Your task to perform on an android device: change timer sound Image 0: 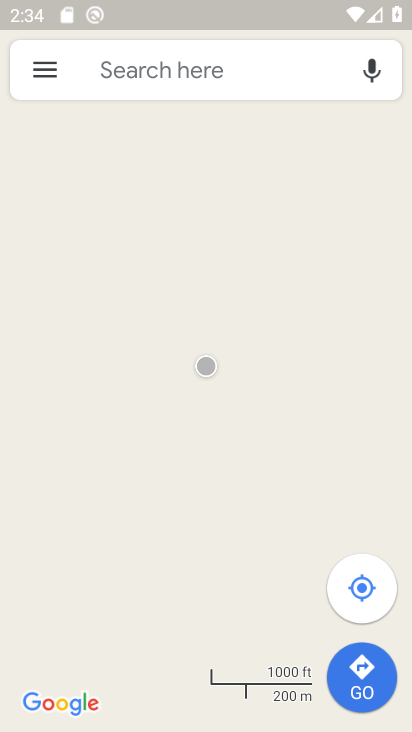
Step 0: press back button
Your task to perform on an android device: change timer sound Image 1: 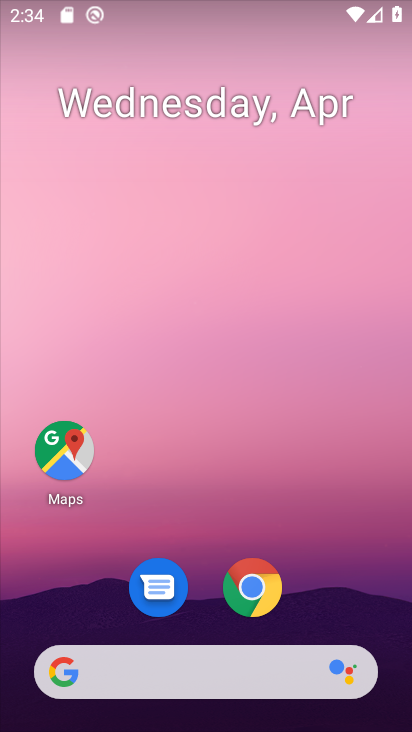
Step 1: drag from (393, 638) to (295, 82)
Your task to perform on an android device: change timer sound Image 2: 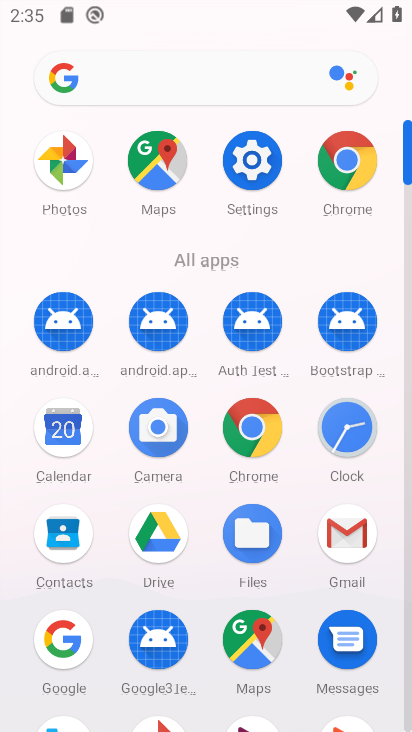
Step 2: click (345, 442)
Your task to perform on an android device: change timer sound Image 3: 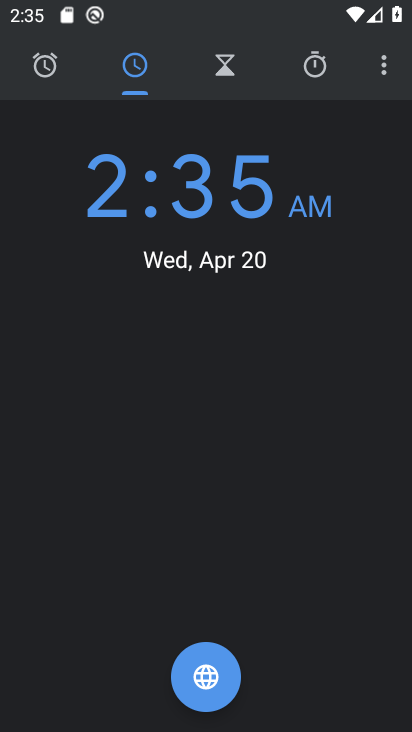
Step 3: click (380, 67)
Your task to perform on an android device: change timer sound Image 4: 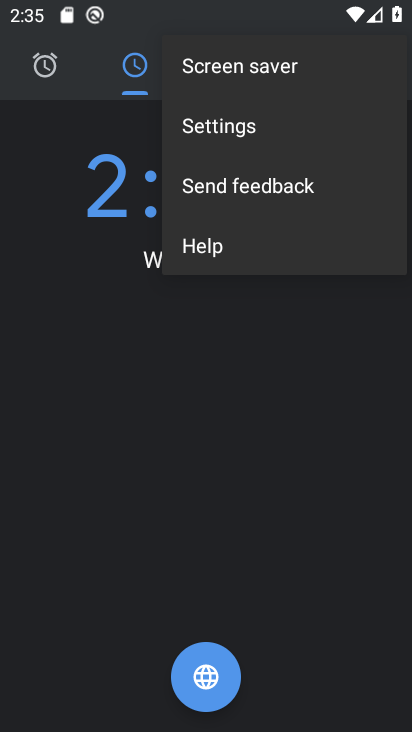
Step 4: click (251, 133)
Your task to perform on an android device: change timer sound Image 5: 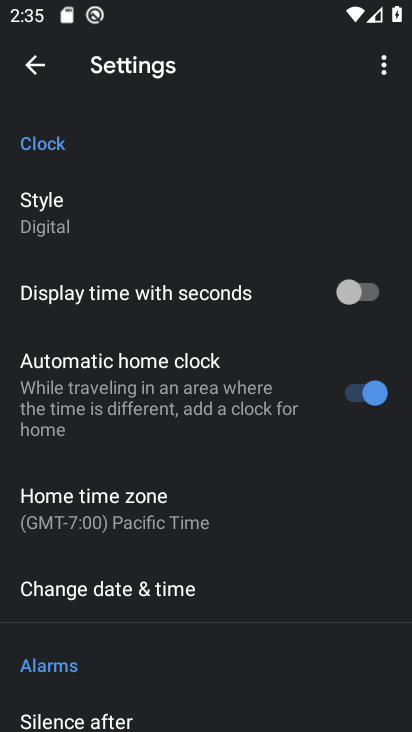
Step 5: drag from (156, 643) to (211, 199)
Your task to perform on an android device: change timer sound Image 6: 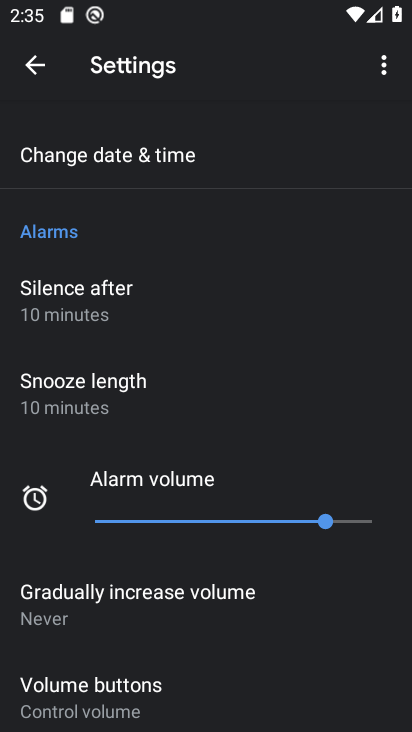
Step 6: drag from (159, 571) to (198, 183)
Your task to perform on an android device: change timer sound Image 7: 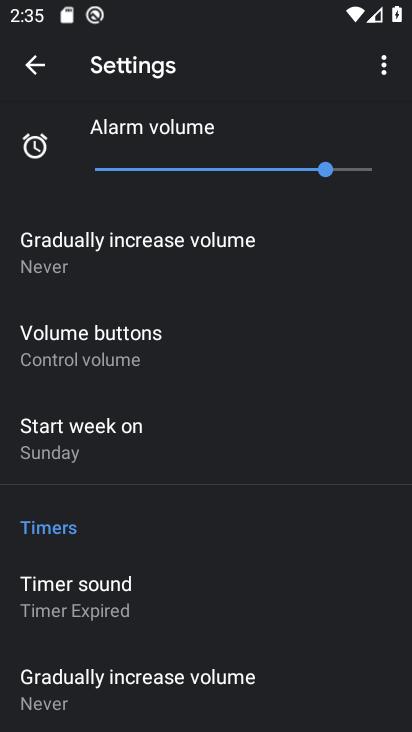
Step 7: click (106, 606)
Your task to perform on an android device: change timer sound Image 8: 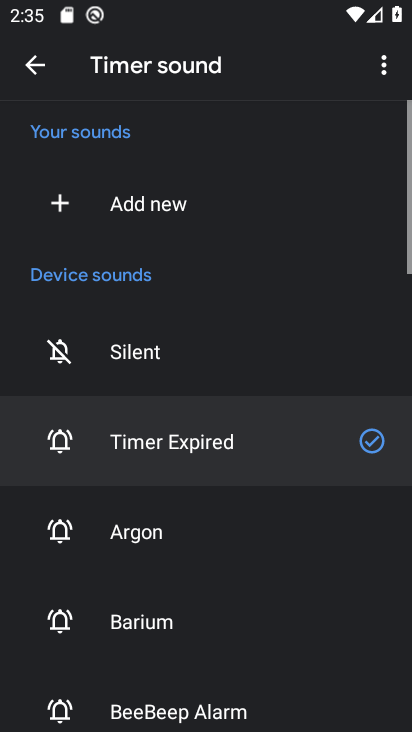
Step 8: click (242, 545)
Your task to perform on an android device: change timer sound Image 9: 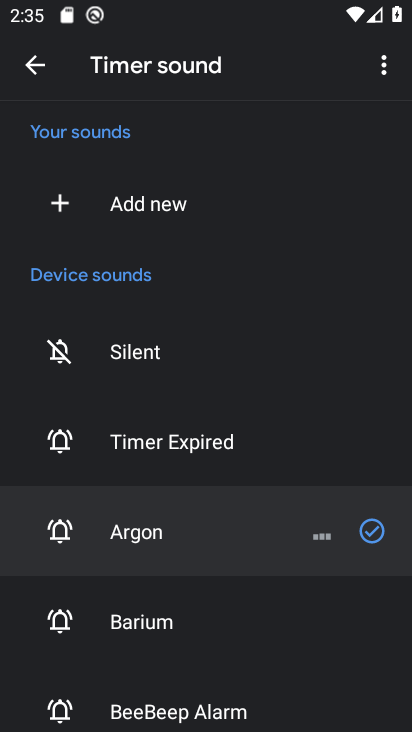
Step 9: task complete